Your task to perform on an android device: When is my next appointment? Image 0: 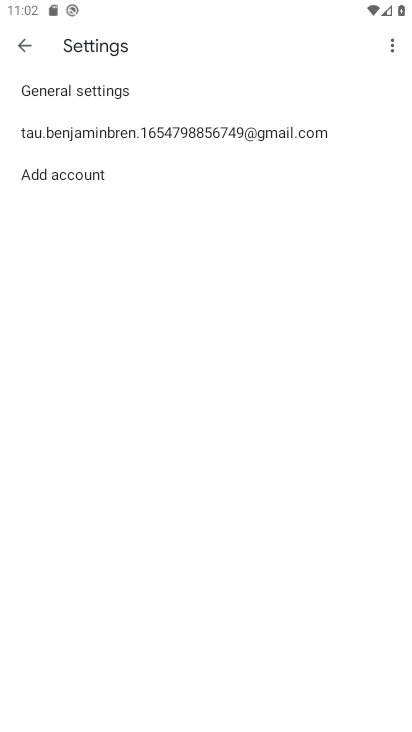
Step 0: press home button
Your task to perform on an android device: When is my next appointment? Image 1: 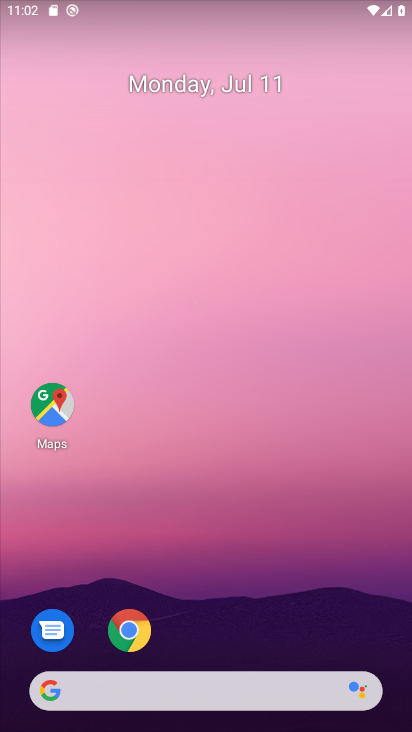
Step 1: drag from (227, 603) to (210, 100)
Your task to perform on an android device: When is my next appointment? Image 2: 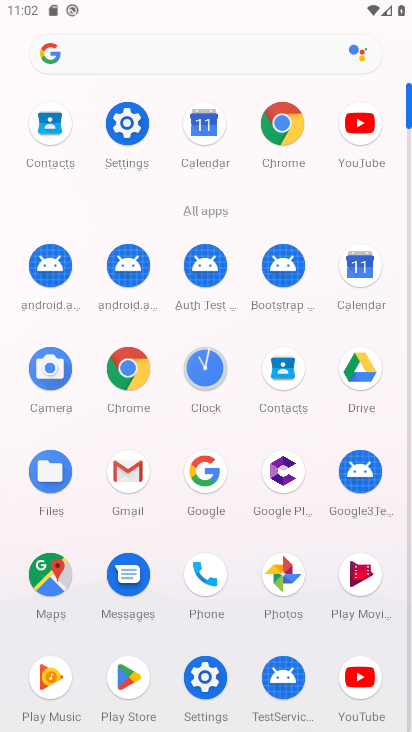
Step 2: click (349, 269)
Your task to perform on an android device: When is my next appointment? Image 3: 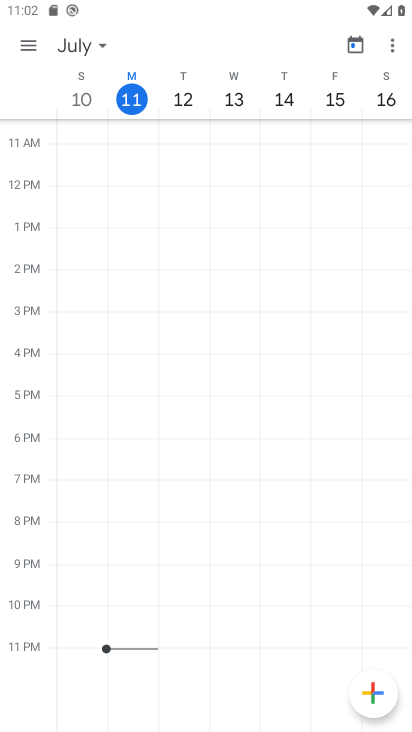
Step 3: click (37, 49)
Your task to perform on an android device: When is my next appointment? Image 4: 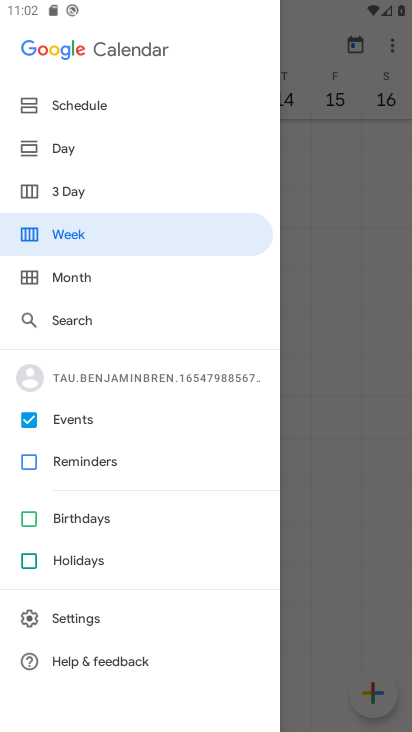
Step 4: click (85, 457)
Your task to perform on an android device: When is my next appointment? Image 5: 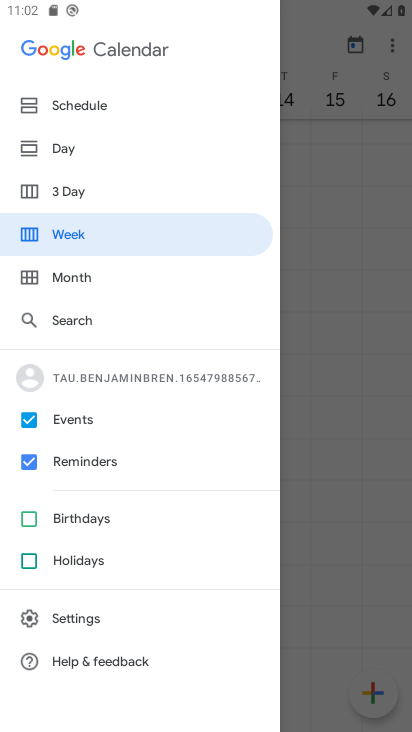
Step 5: click (74, 103)
Your task to perform on an android device: When is my next appointment? Image 6: 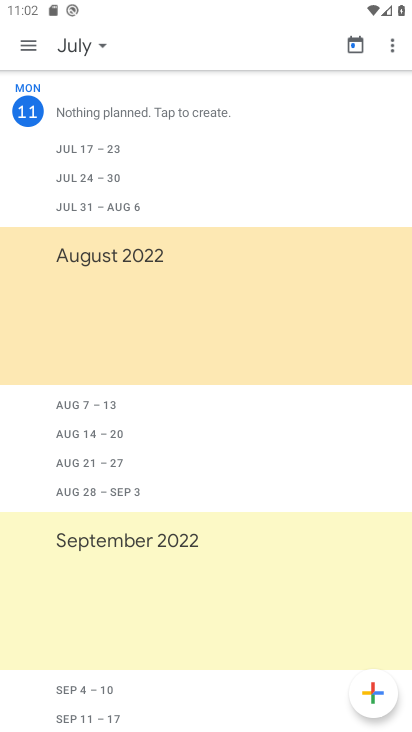
Step 6: task complete